Your task to perform on an android device: Show the shopping cart on ebay. Search for apple airpods on ebay, select the first entry, add it to the cart, then select checkout. Image 0: 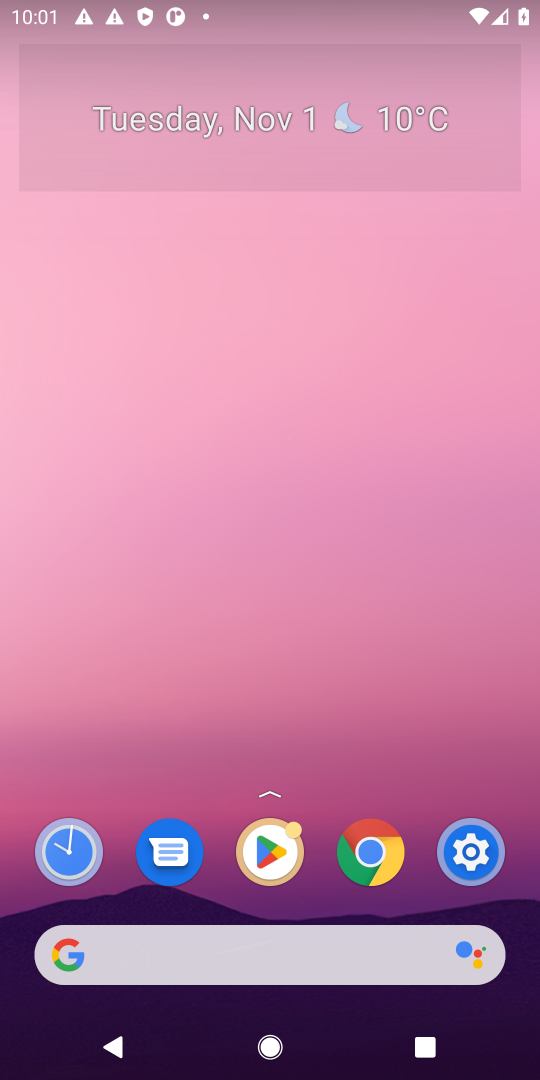
Step 0: press home button
Your task to perform on an android device: Show the shopping cart on ebay. Search for apple airpods on ebay, select the first entry, add it to the cart, then select checkout. Image 1: 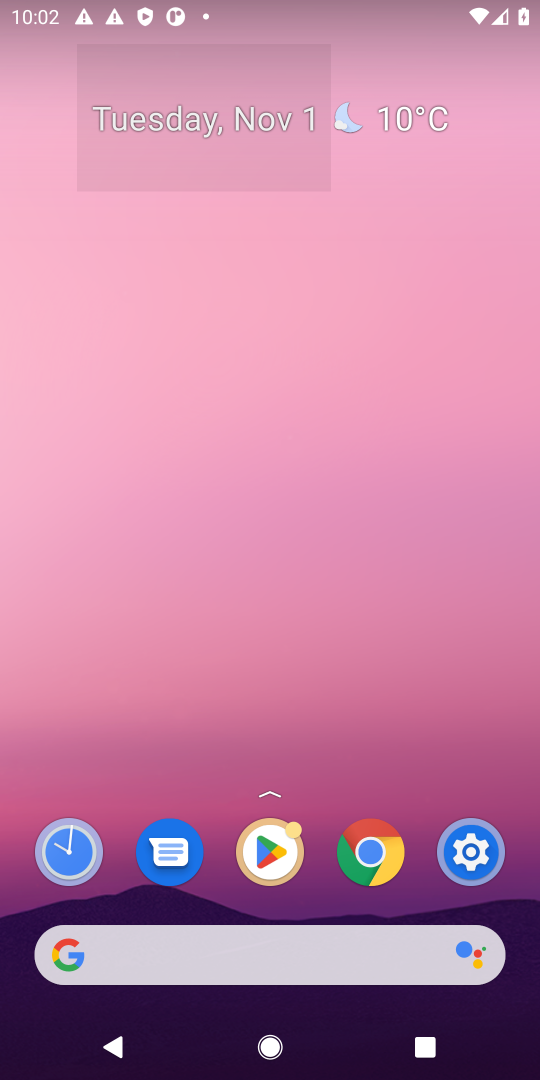
Step 1: click (62, 964)
Your task to perform on an android device: Show the shopping cart on ebay. Search for apple airpods on ebay, select the first entry, add it to the cart, then select checkout. Image 2: 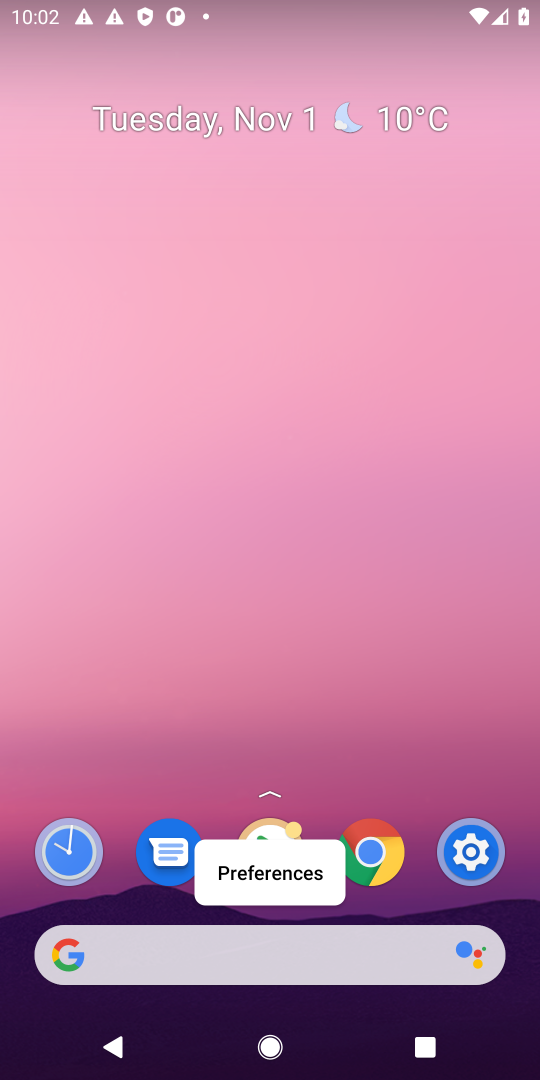
Step 2: click (62, 964)
Your task to perform on an android device: Show the shopping cart on ebay. Search for apple airpods on ebay, select the first entry, add it to the cart, then select checkout. Image 3: 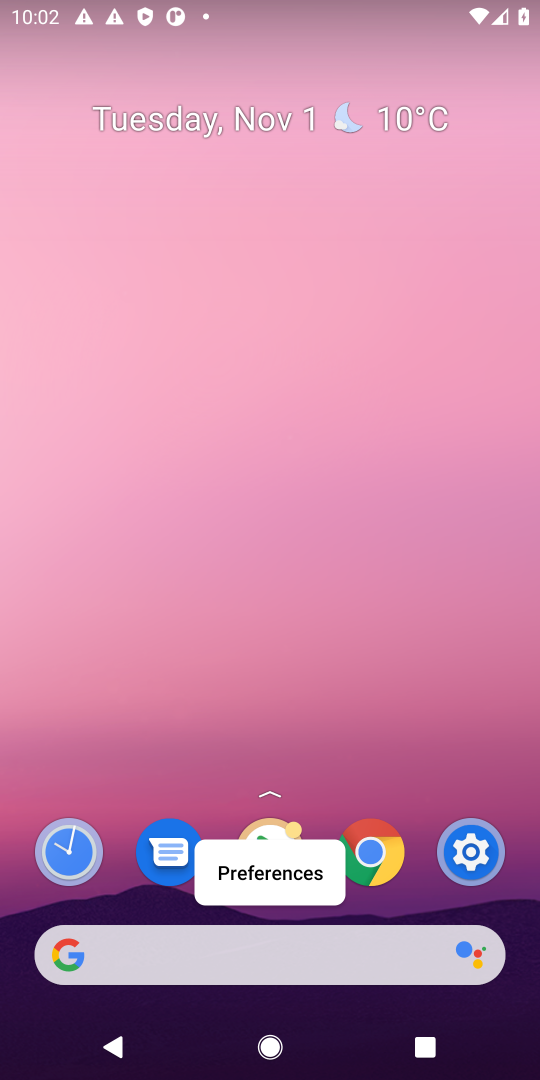
Step 3: click (66, 964)
Your task to perform on an android device: Show the shopping cart on ebay. Search for apple airpods on ebay, select the first entry, add it to the cart, then select checkout. Image 4: 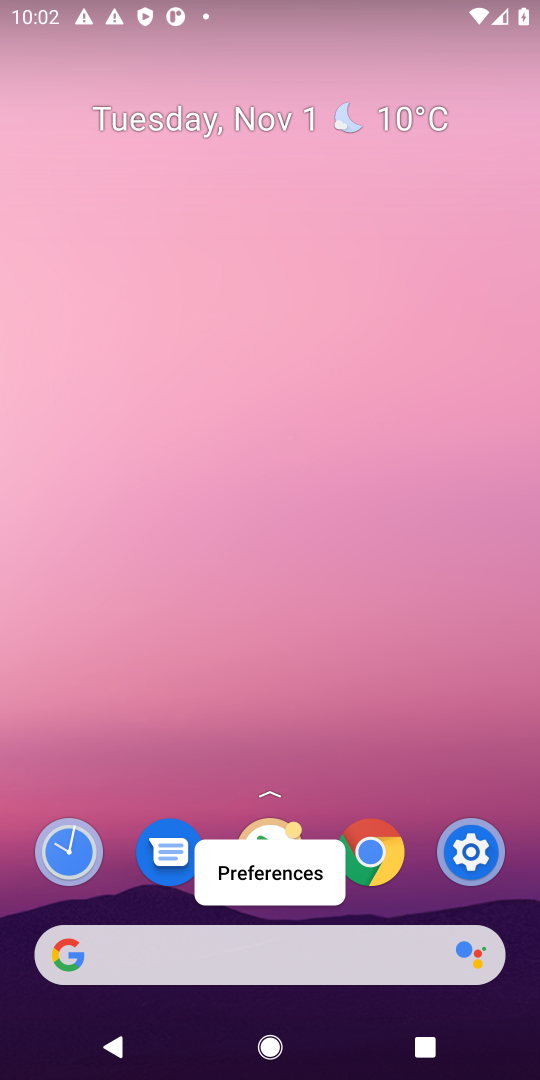
Step 4: click (66, 964)
Your task to perform on an android device: Show the shopping cart on ebay. Search for apple airpods on ebay, select the first entry, add it to the cart, then select checkout. Image 5: 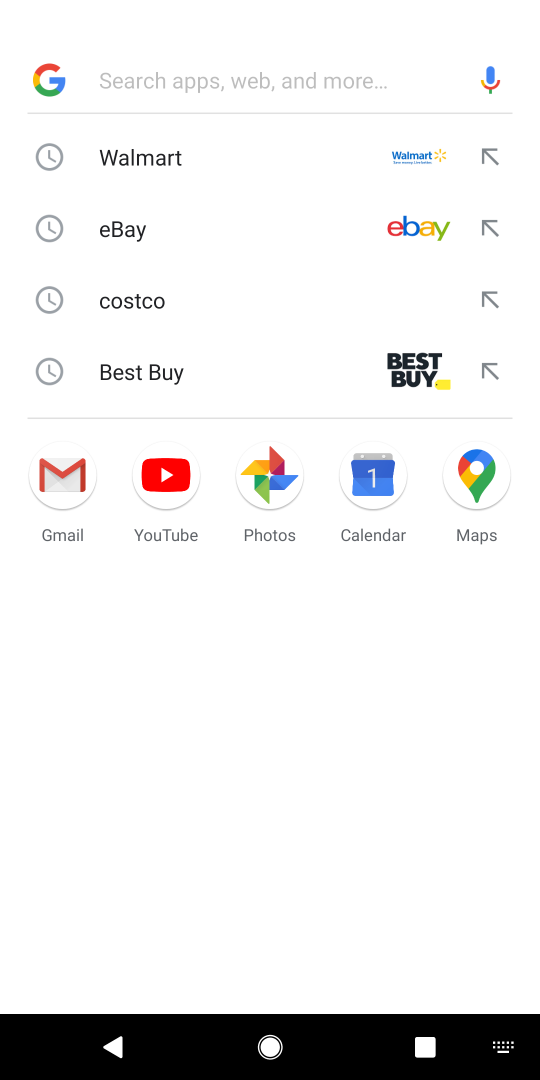
Step 5: click (126, 235)
Your task to perform on an android device: Show the shopping cart on ebay. Search for apple airpods on ebay, select the first entry, add it to the cart, then select checkout. Image 6: 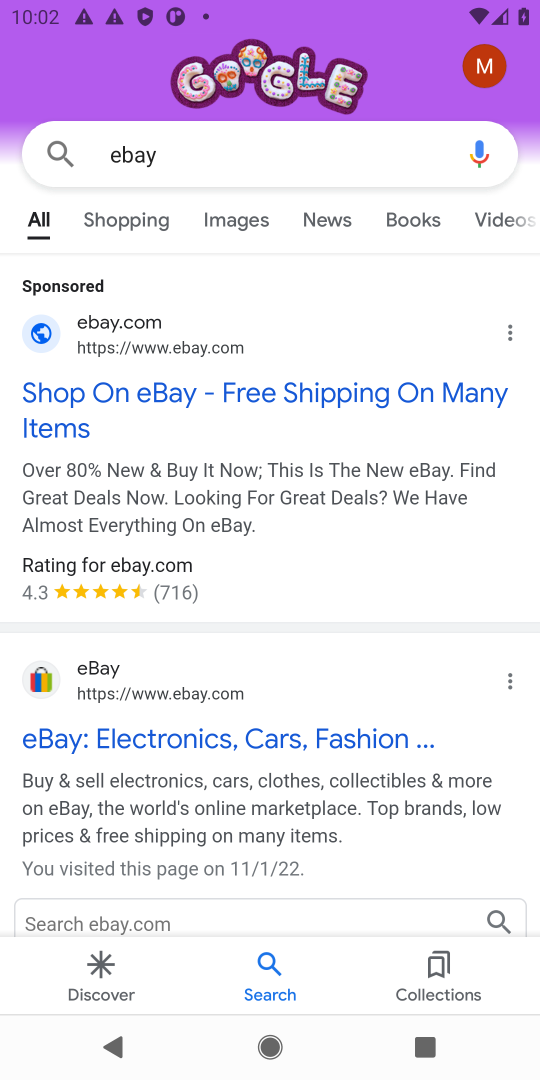
Step 6: click (256, 744)
Your task to perform on an android device: Show the shopping cart on ebay. Search for apple airpods on ebay, select the first entry, add it to the cart, then select checkout. Image 7: 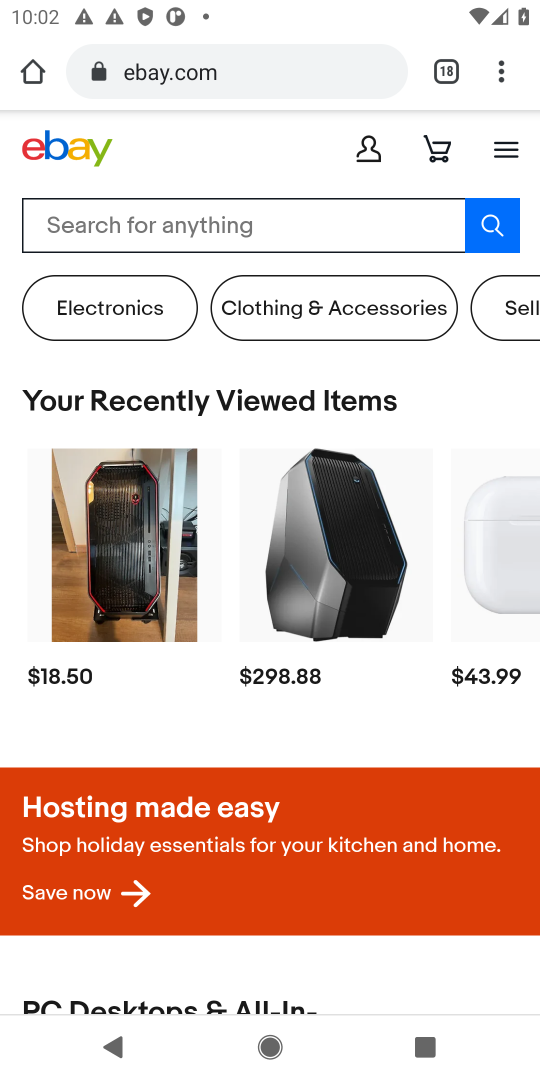
Step 7: click (442, 155)
Your task to perform on an android device: Show the shopping cart on ebay. Search for apple airpods on ebay, select the first entry, add it to the cart, then select checkout. Image 8: 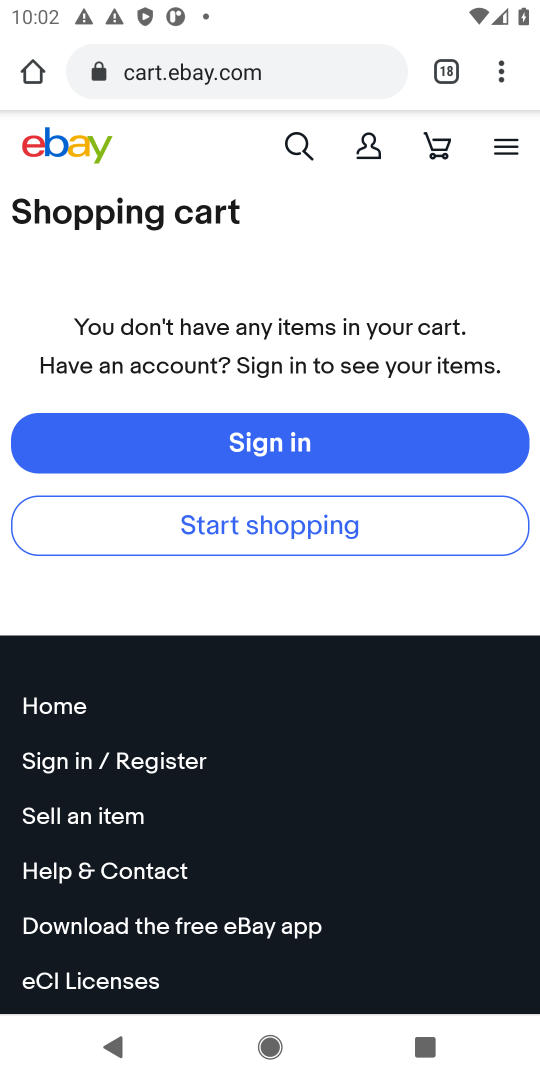
Step 8: click (313, 140)
Your task to perform on an android device: Show the shopping cart on ebay. Search for apple airpods on ebay, select the first entry, add it to the cart, then select checkout. Image 9: 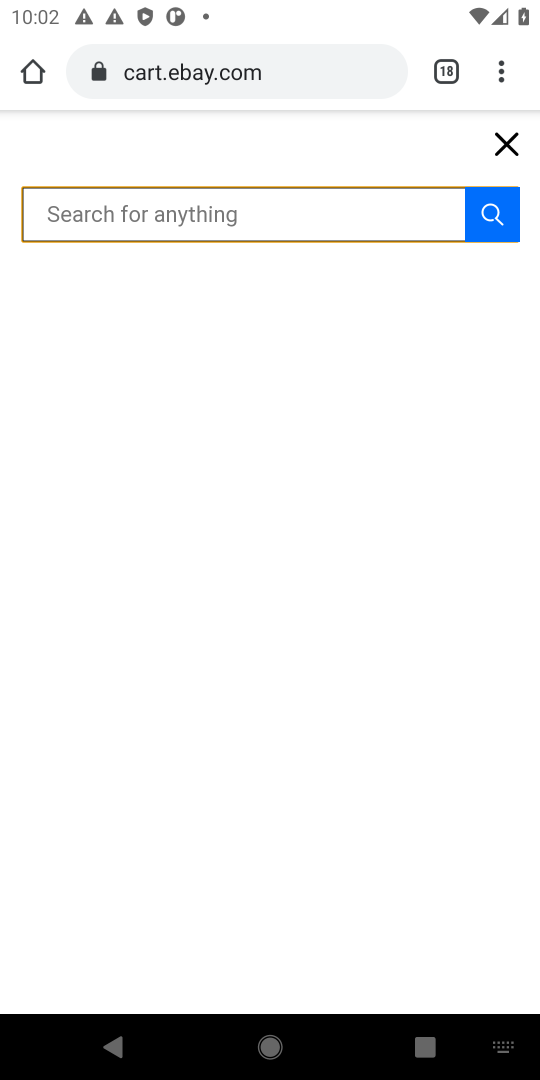
Step 9: click (313, 219)
Your task to perform on an android device: Show the shopping cart on ebay. Search for apple airpods on ebay, select the first entry, add it to the cart, then select checkout. Image 10: 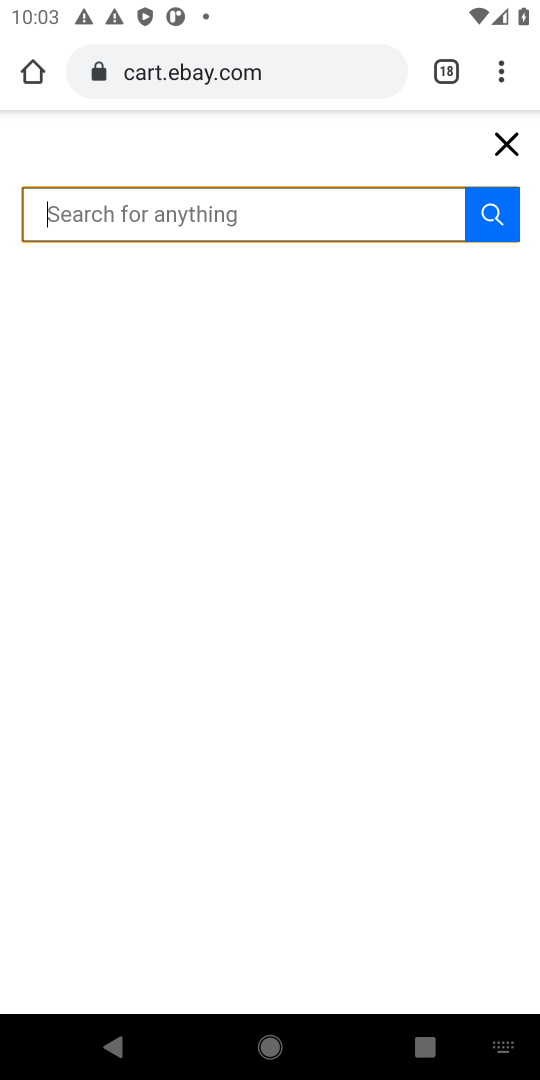
Step 10: type "apple airpods"
Your task to perform on an android device: Show the shopping cart on ebay. Search for apple airpods on ebay, select the first entry, add it to the cart, then select checkout. Image 11: 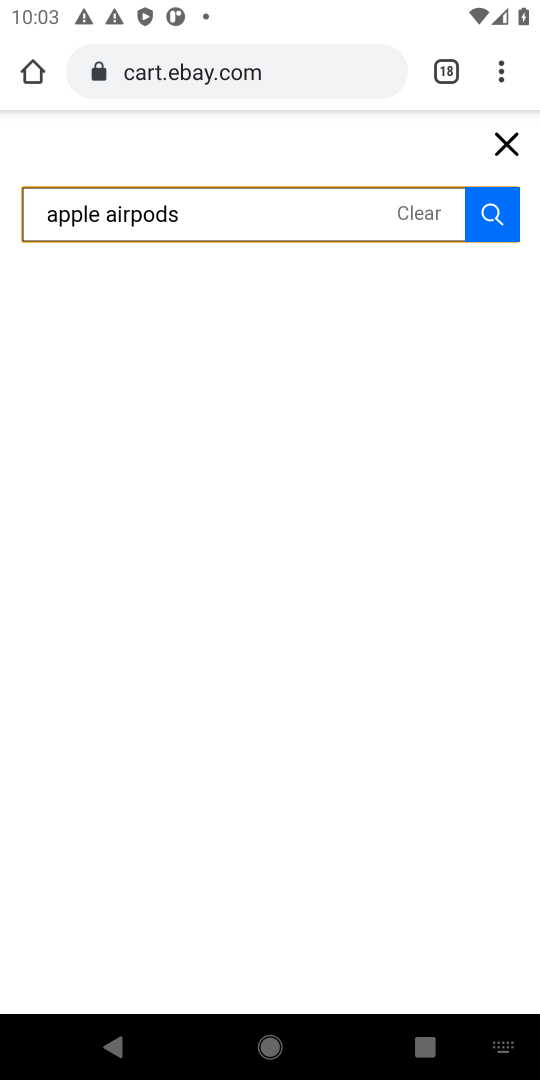
Step 11: press enter
Your task to perform on an android device: Show the shopping cart on ebay. Search for apple airpods on ebay, select the first entry, add it to the cart, then select checkout. Image 12: 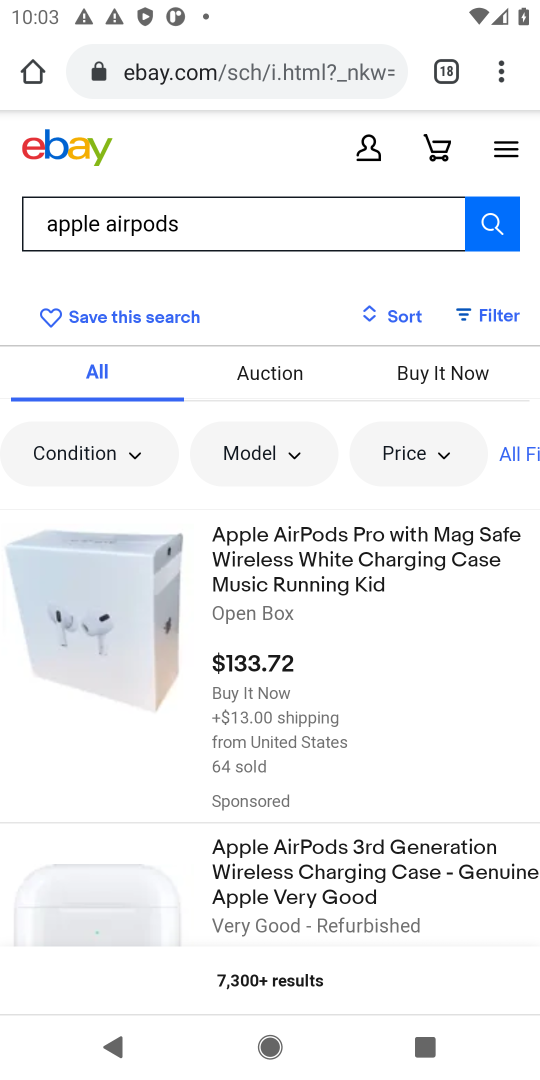
Step 12: click (109, 596)
Your task to perform on an android device: Show the shopping cart on ebay. Search for apple airpods on ebay, select the first entry, add it to the cart, then select checkout. Image 13: 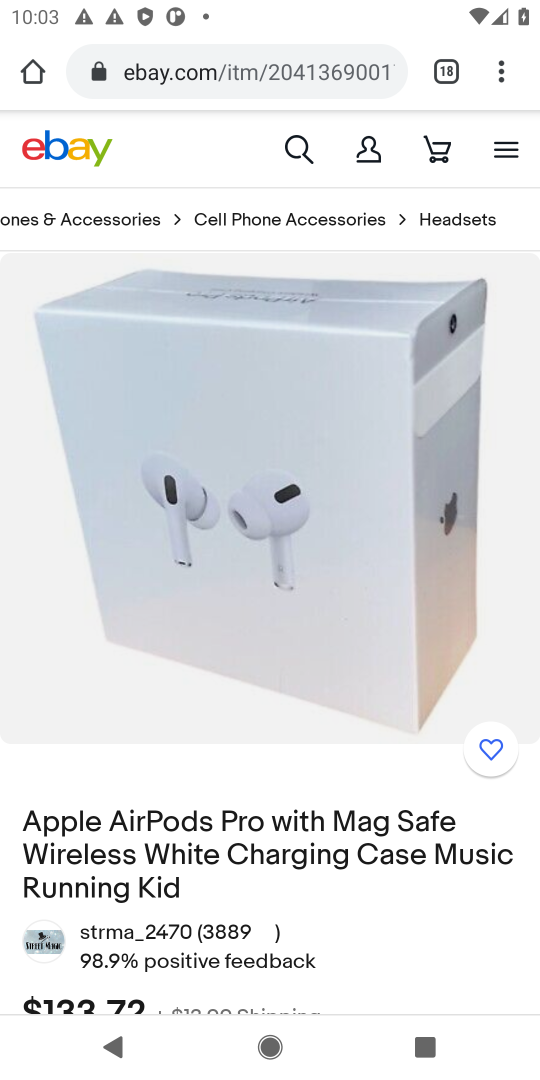
Step 13: drag from (438, 920) to (390, 466)
Your task to perform on an android device: Show the shopping cart on ebay. Search for apple airpods on ebay, select the first entry, add it to the cart, then select checkout. Image 14: 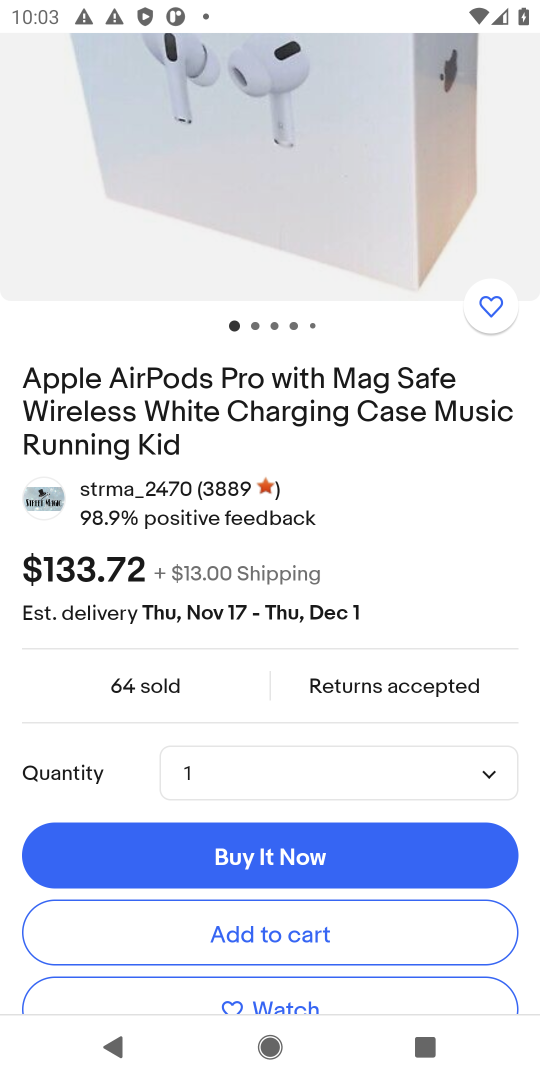
Step 14: click (255, 933)
Your task to perform on an android device: Show the shopping cart on ebay. Search for apple airpods on ebay, select the first entry, add it to the cart, then select checkout. Image 15: 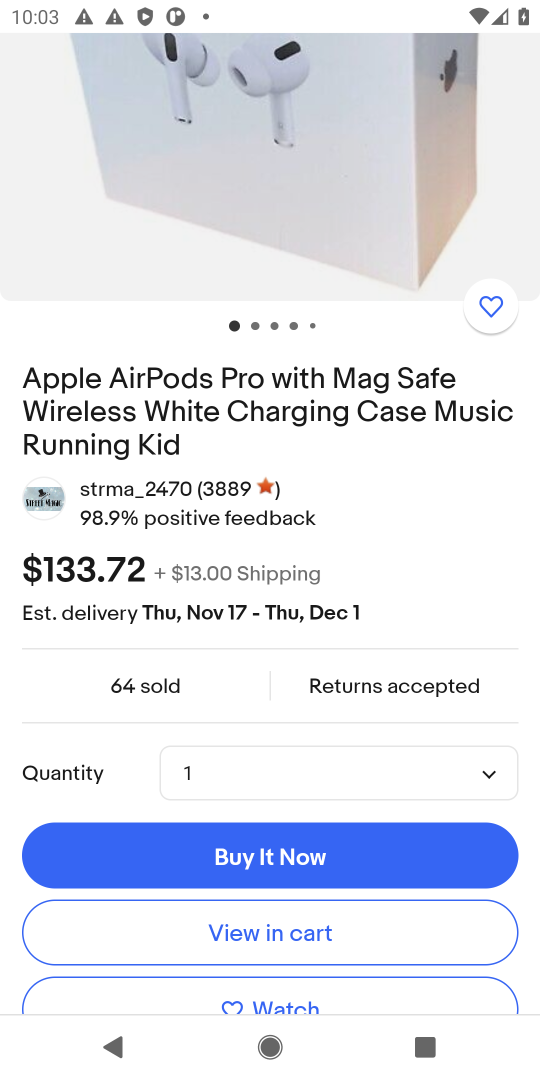
Step 15: click (300, 926)
Your task to perform on an android device: Show the shopping cart on ebay. Search for apple airpods on ebay, select the first entry, add it to the cart, then select checkout. Image 16: 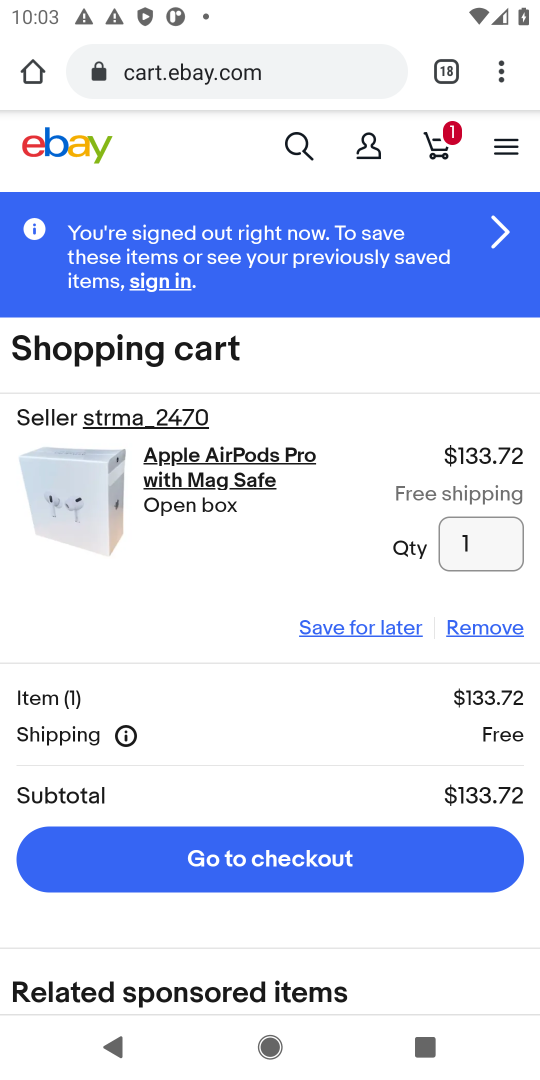
Step 16: click (363, 860)
Your task to perform on an android device: Show the shopping cart on ebay. Search for apple airpods on ebay, select the first entry, add it to the cart, then select checkout. Image 17: 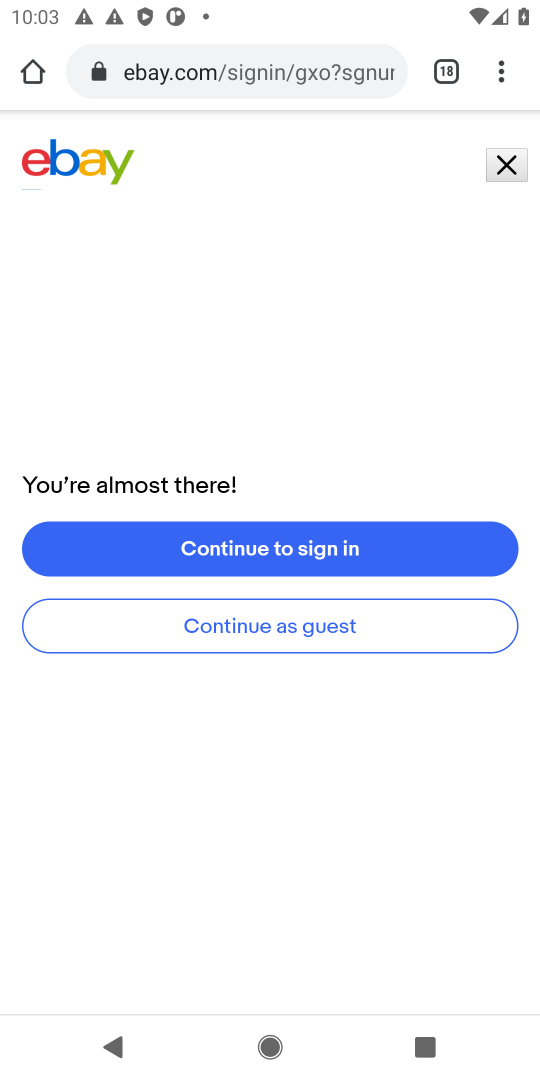
Step 17: task complete